Your task to perform on an android device: Go to accessibility settings Image 0: 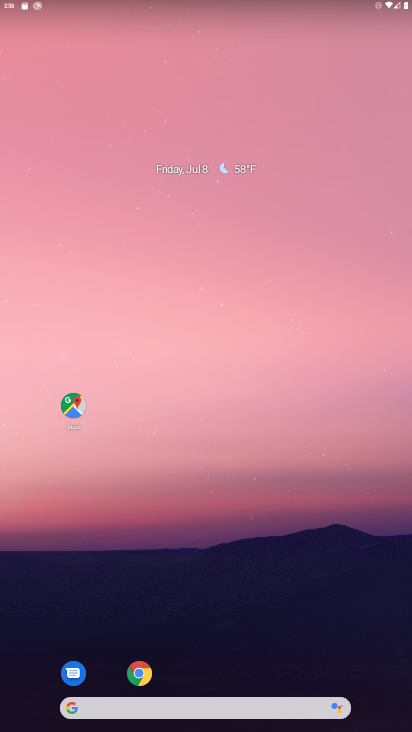
Step 0: drag from (184, 694) to (229, 312)
Your task to perform on an android device: Go to accessibility settings Image 1: 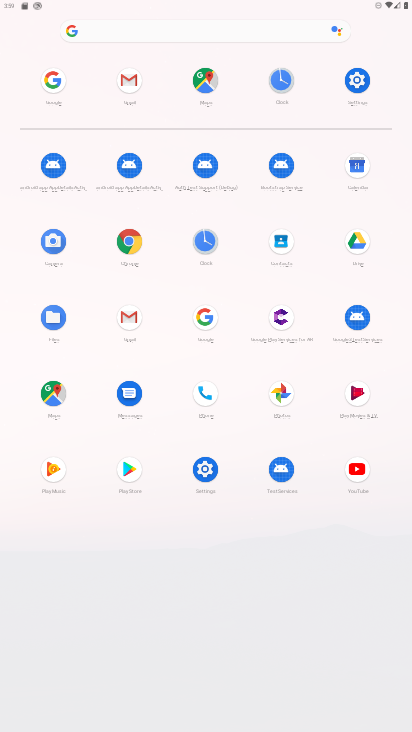
Step 1: click (214, 477)
Your task to perform on an android device: Go to accessibility settings Image 2: 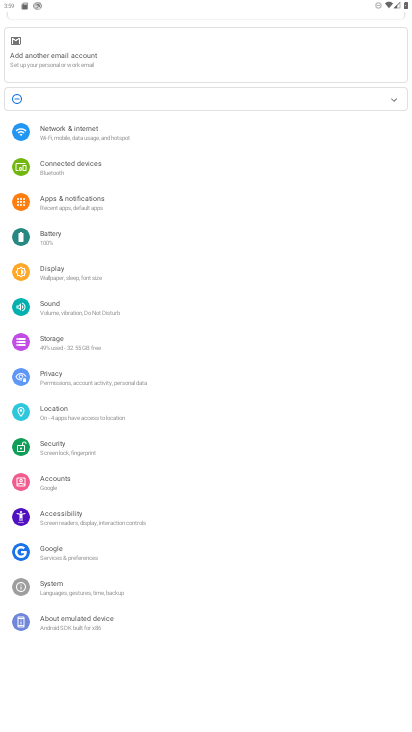
Step 2: click (85, 516)
Your task to perform on an android device: Go to accessibility settings Image 3: 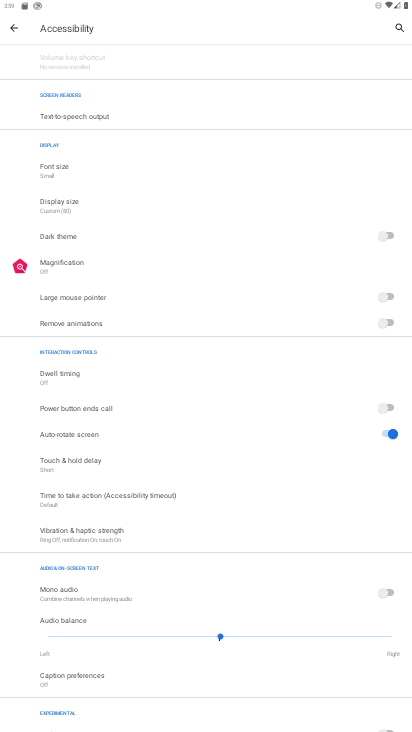
Step 3: task complete